Your task to perform on an android device: Open network settings Image 0: 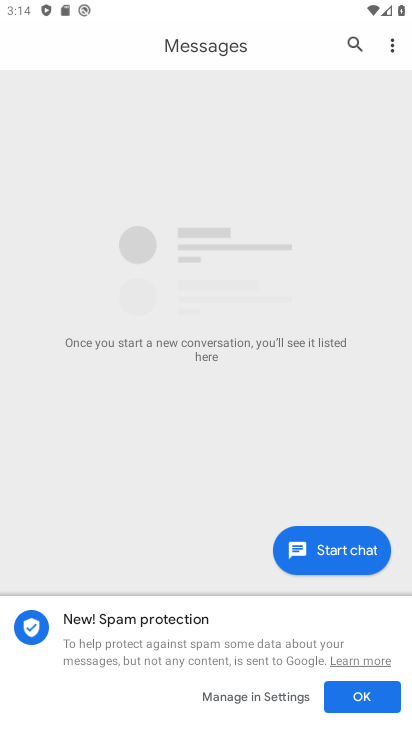
Step 0: drag from (227, 648) to (236, 76)
Your task to perform on an android device: Open network settings Image 1: 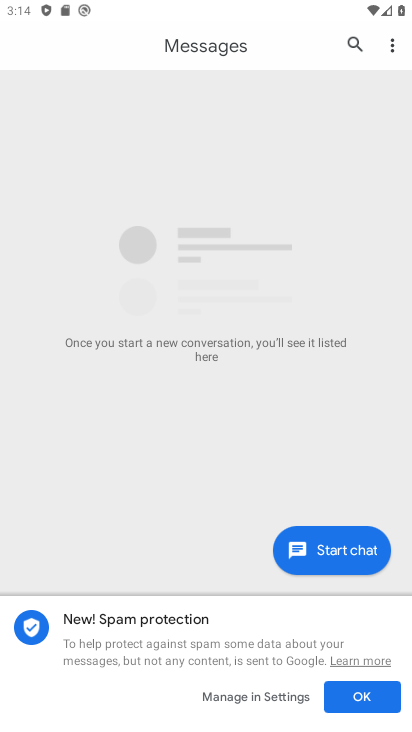
Step 1: press home button
Your task to perform on an android device: Open network settings Image 2: 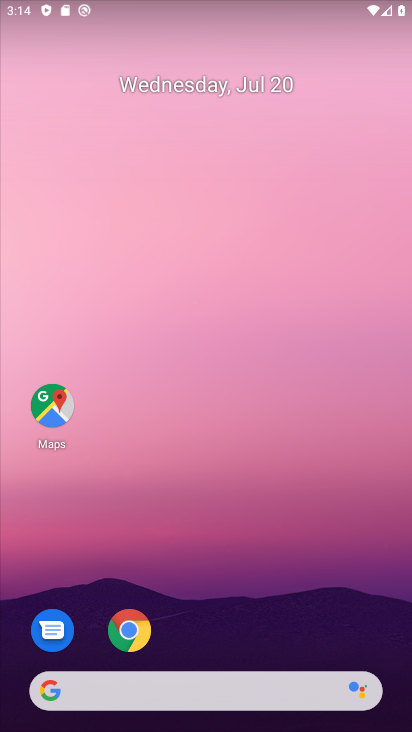
Step 2: drag from (256, 519) to (280, 44)
Your task to perform on an android device: Open network settings Image 3: 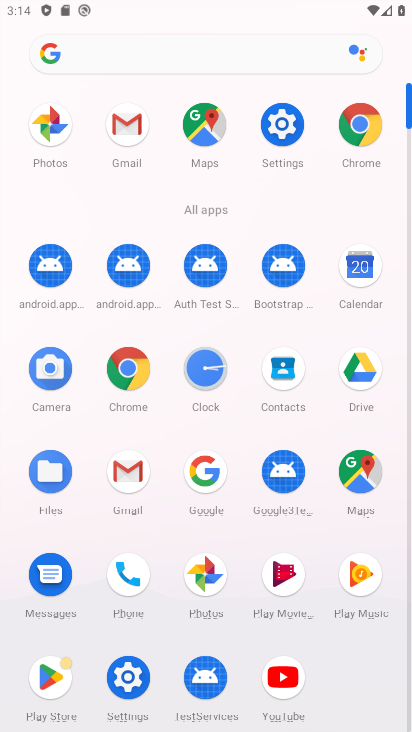
Step 3: click (291, 133)
Your task to perform on an android device: Open network settings Image 4: 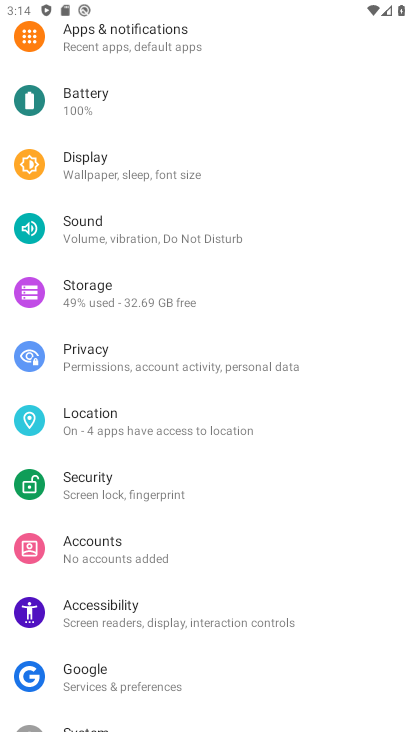
Step 4: drag from (313, 126) to (301, 610)
Your task to perform on an android device: Open network settings Image 5: 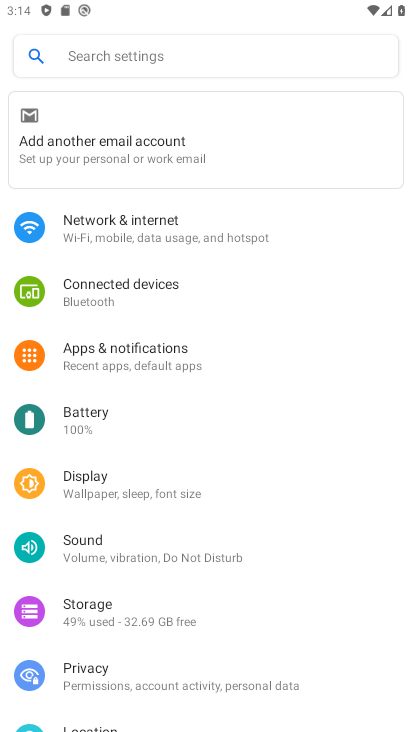
Step 5: click (124, 225)
Your task to perform on an android device: Open network settings Image 6: 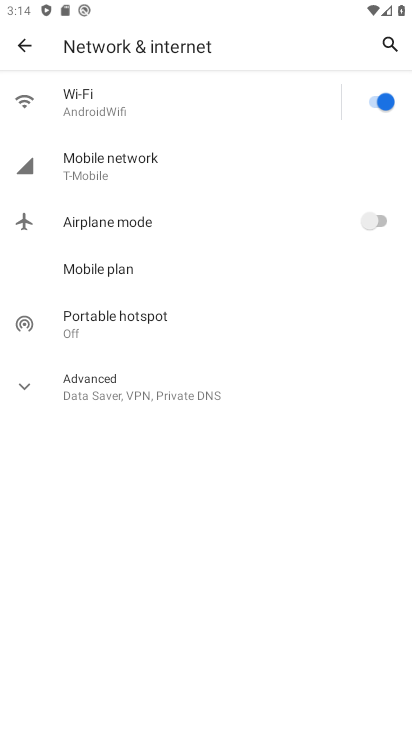
Step 6: task complete